Your task to perform on an android device: see creations saved in the google photos Image 0: 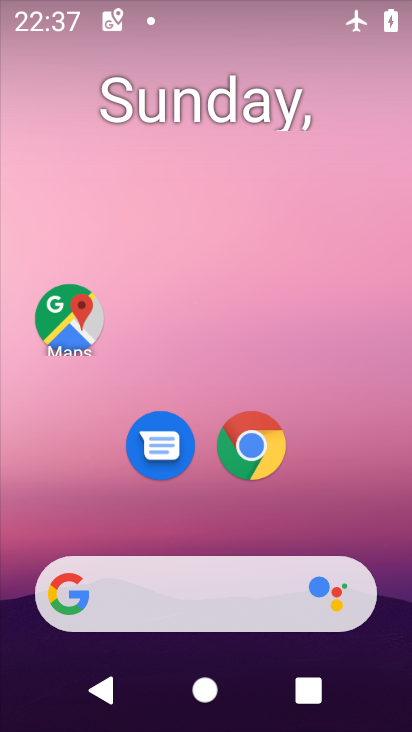
Step 0: drag from (243, 511) to (243, 86)
Your task to perform on an android device: see creations saved in the google photos Image 1: 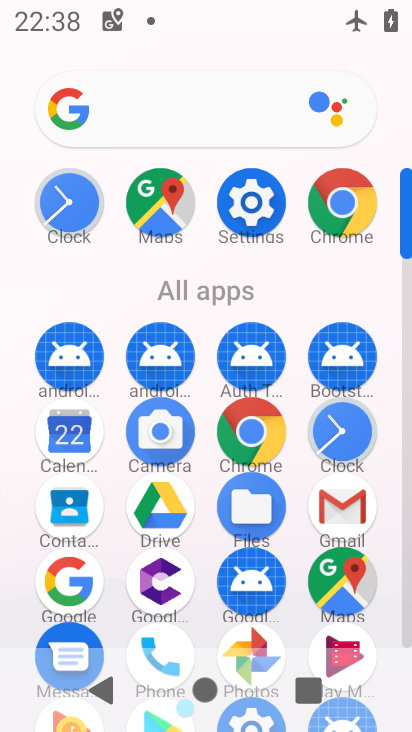
Step 1: drag from (287, 5) to (298, 682)
Your task to perform on an android device: see creations saved in the google photos Image 2: 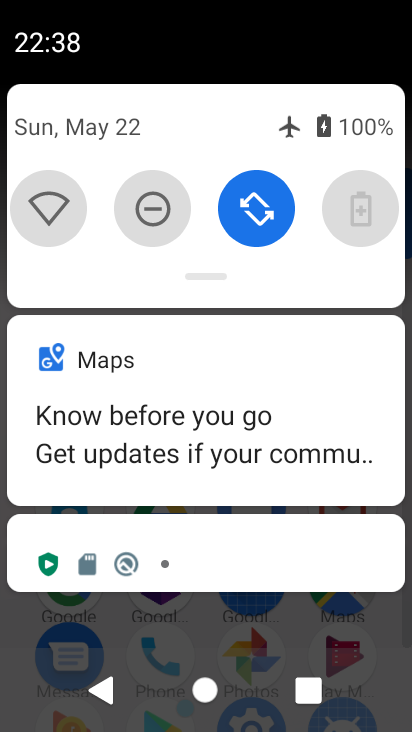
Step 2: drag from (297, 272) to (296, 722)
Your task to perform on an android device: see creations saved in the google photos Image 3: 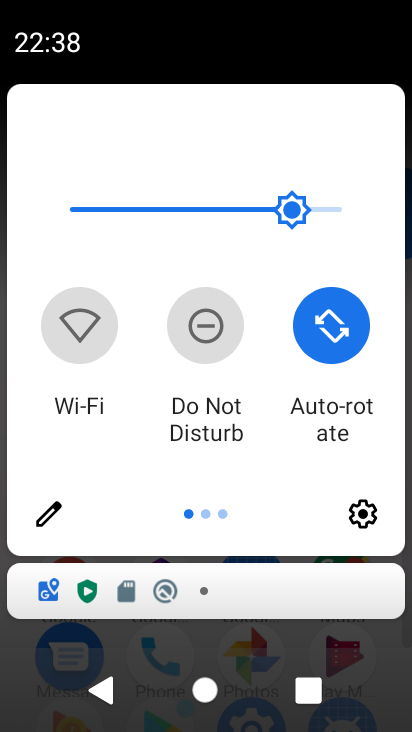
Step 3: drag from (394, 276) to (1, 240)
Your task to perform on an android device: see creations saved in the google photos Image 4: 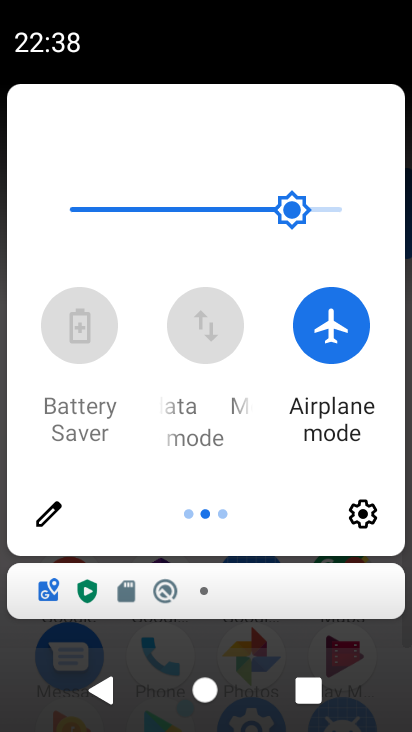
Step 4: click (321, 326)
Your task to perform on an android device: see creations saved in the google photos Image 5: 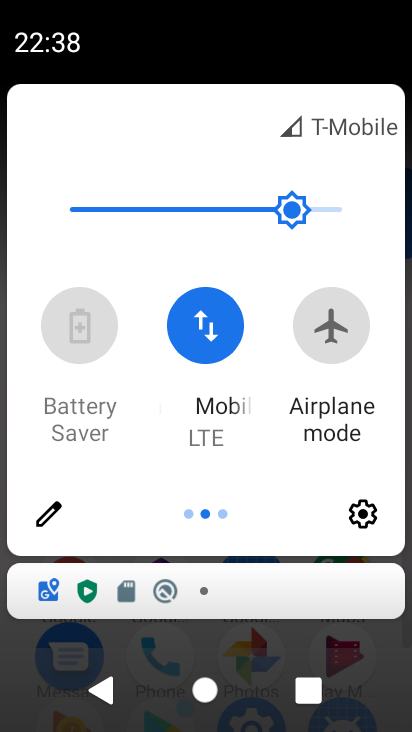
Step 5: click (386, 636)
Your task to perform on an android device: see creations saved in the google photos Image 6: 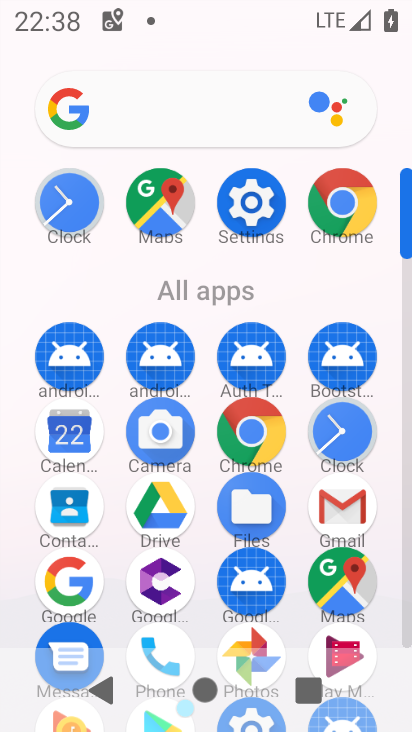
Step 6: drag from (275, 284) to (267, 47)
Your task to perform on an android device: see creations saved in the google photos Image 7: 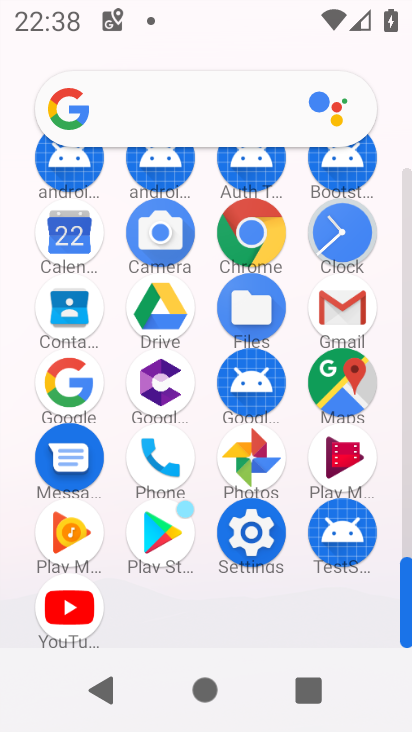
Step 7: click (264, 462)
Your task to perform on an android device: see creations saved in the google photos Image 8: 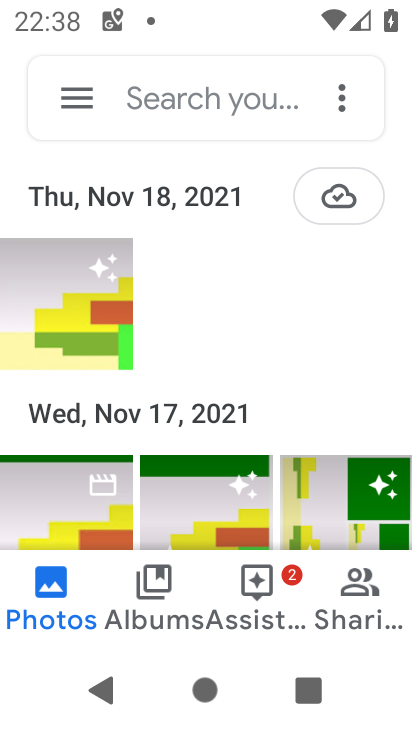
Step 8: click (144, 95)
Your task to perform on an android device: see creations saved in the google photos Image 9: 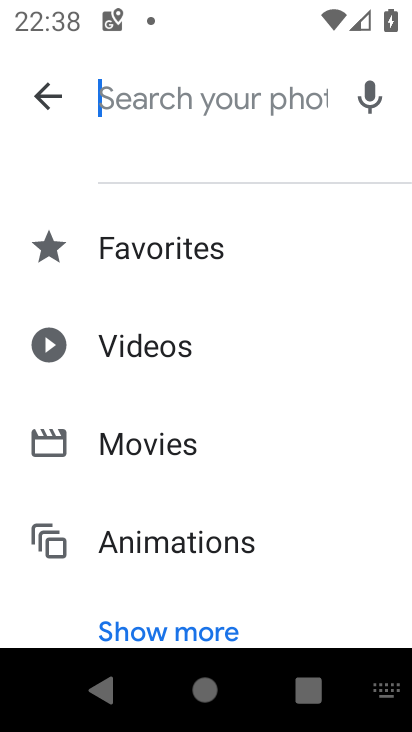
Step 9: click (168, 626)
Your task to perform on an android device: see creations saved in the google photos Image 10: 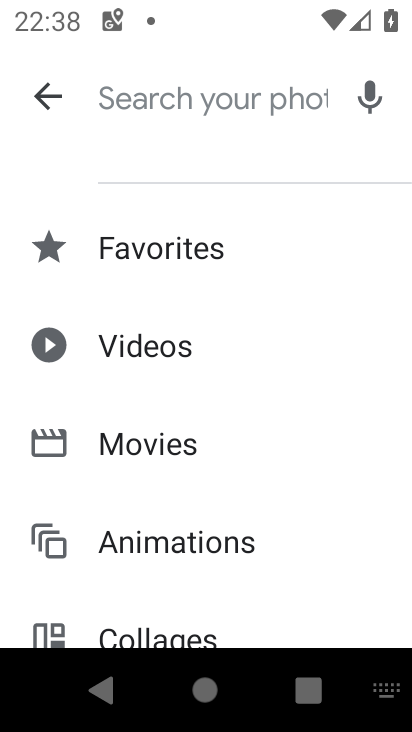
Step 10: drag from (312, 541) to (291, 177)
Your task to perform on an android device: see creations saved in the google photos Image 11: 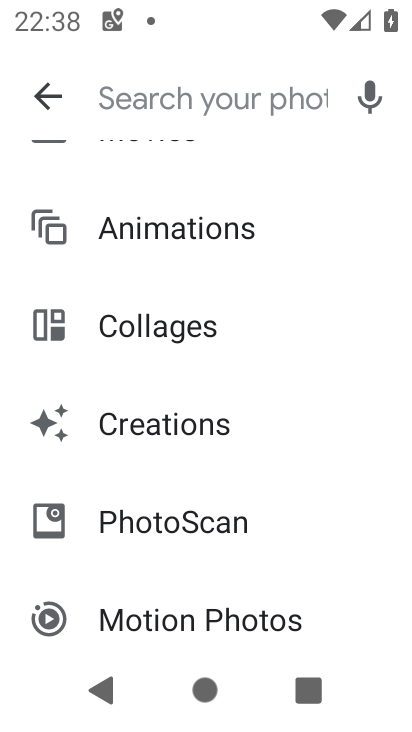
Step 11: click (142, 418)
Your task to perform on an android device: see creations saved in the google photos Image 12: 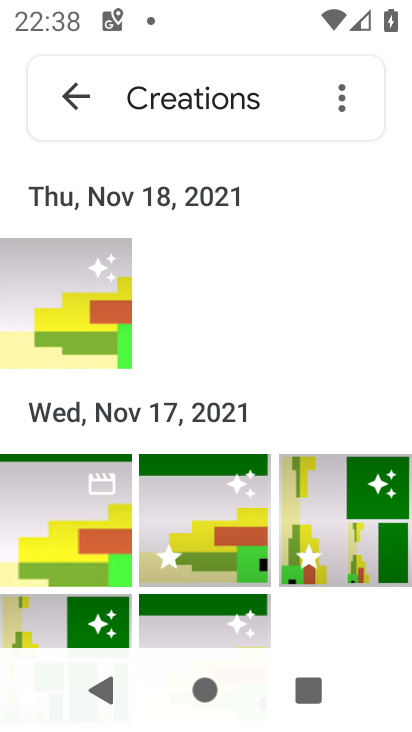
Step 12: task complete